Your task to perform on an android device: turn on wifi Image 0: 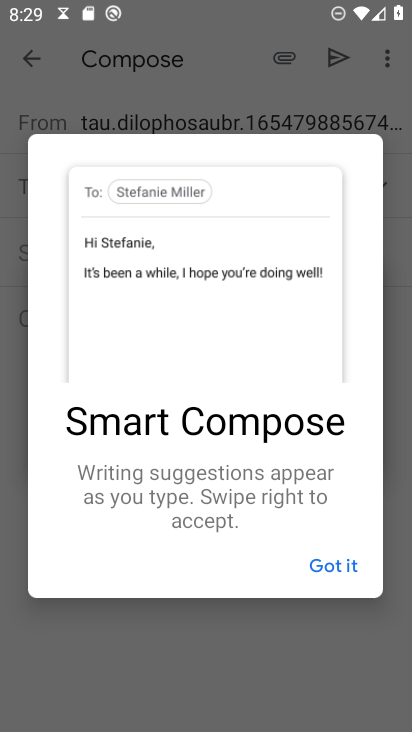
Step 0: press home button
Your task to perform on an android device: turn on wifi Image 1: 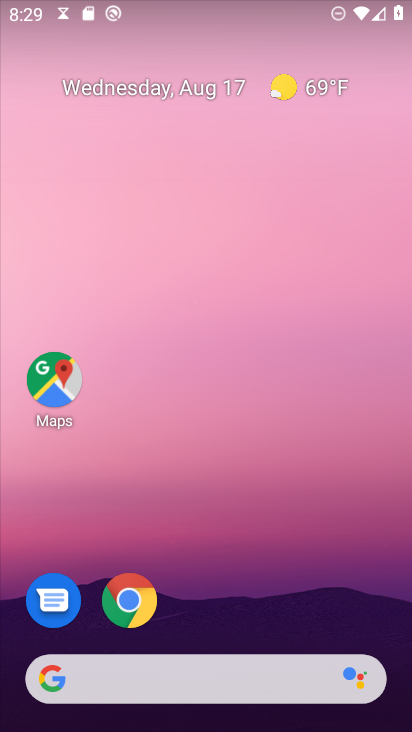
Step 1: drag from (250, 599) to (246, 116)
Your task to perform on an android device: turn on wifi Image 2: 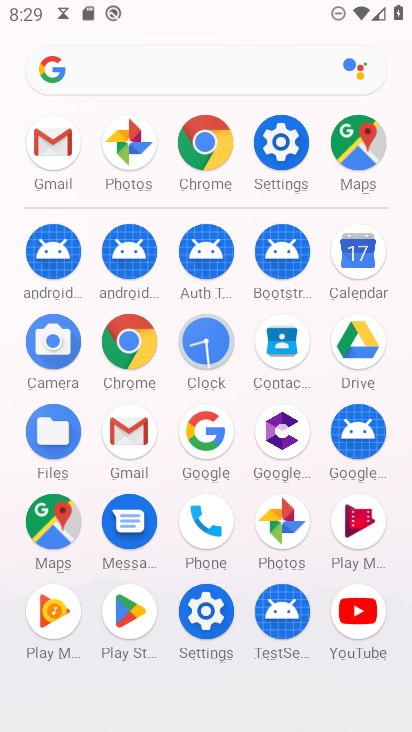
Step 2: click (275, 134)
Your task to perform on an android device: turn on wifi Image 3: 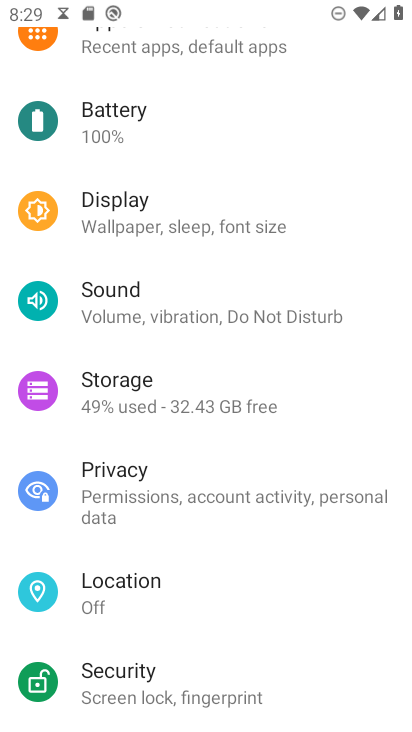
Step 3: drag from (146, 73) to (215, 484)
Your task to perform on an android device: turn on wifi Image 4: 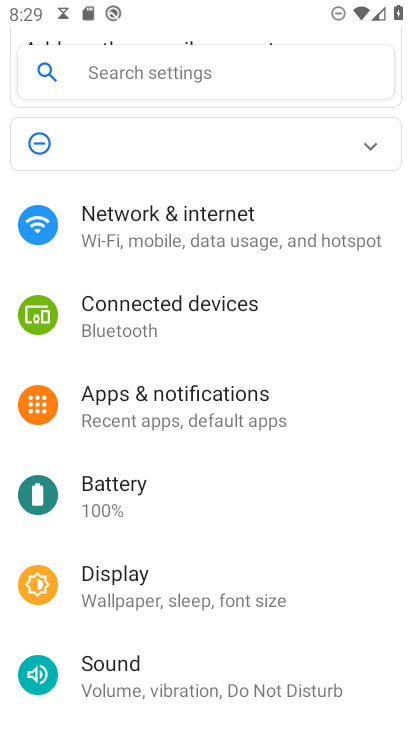
Step 4: click (196, 226)
Your task to perform on an android device: turn on wifi Image 5: 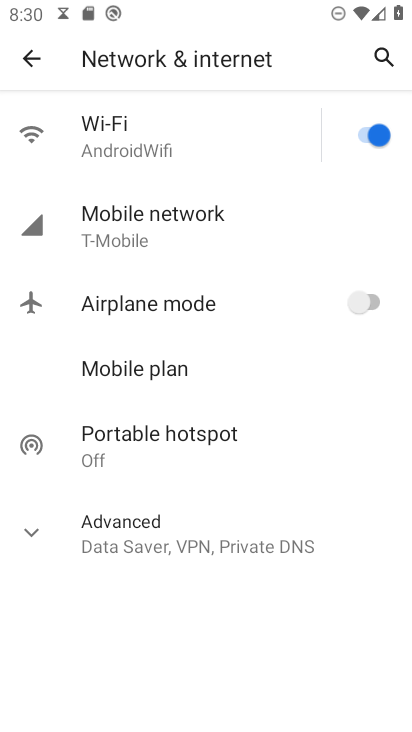
Step 5: task complete